Your task to perform on an android device: Toggle the flashlight Image 0: 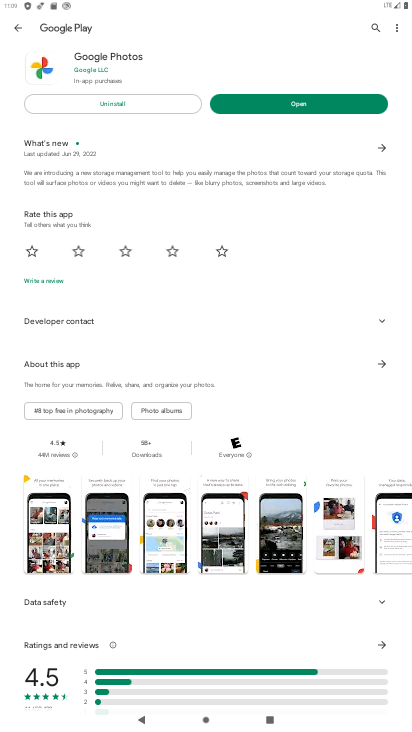
Step 0: press home button
Your task to perform on an android device: Toggle the flashlight Image 1: 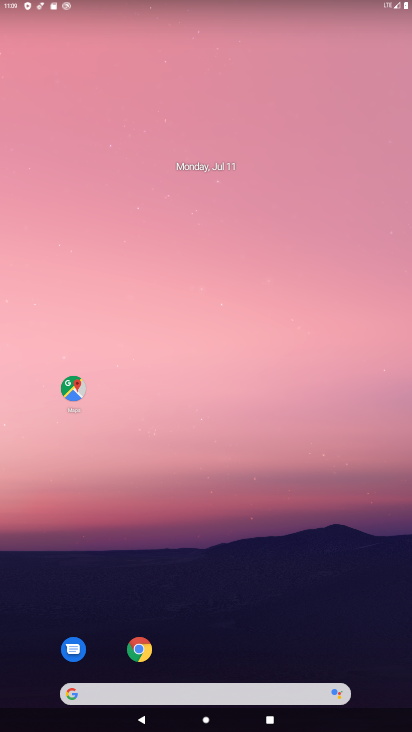
Step 1: drag from (347, 655) to (221, 160)
Your task to perform on an android device: Toggle the flashlight Image 2: 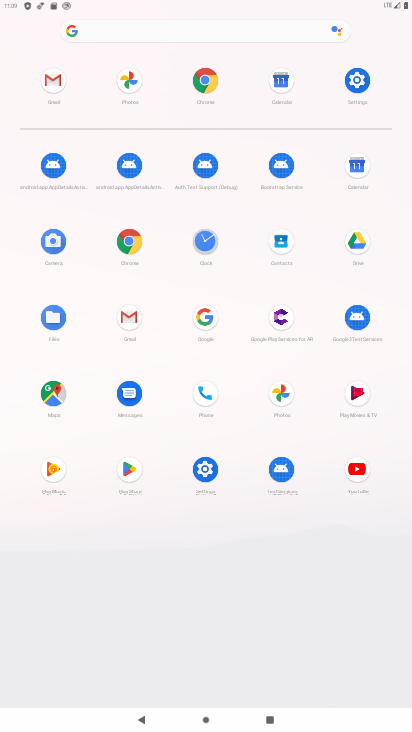
Step 2: click (357, 79)
Your task to perform on an android device: Toggle the flashlight Image 3: 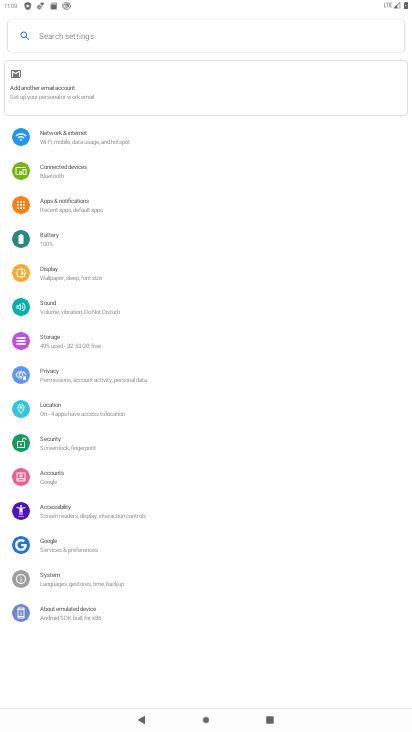
Step 3: click (64, 279)
Your task to perform on an android device: Toggle the flashlight Image 4: 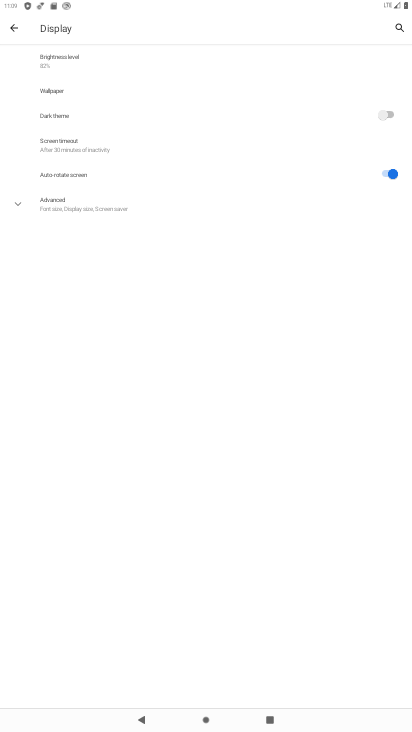
Step 4: task complete